Your task to perform on an android device: remove spam from my inbox in the gmail app Image 0: 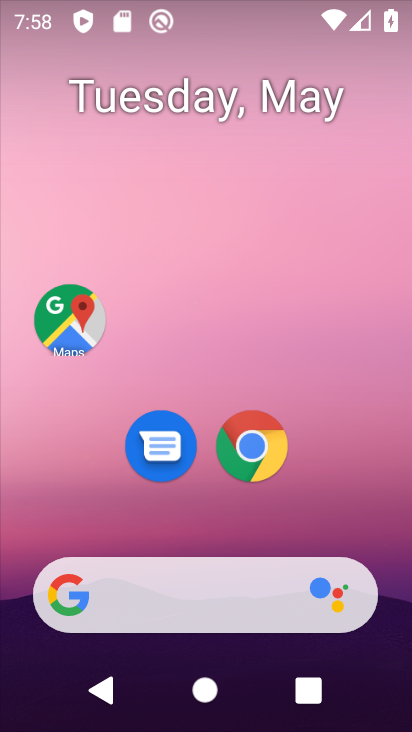
Step 0: drag from (343, 548) to (371, 24)
Your task to perform on an android device: remove spam from my inbox in the gmail app Image 1: 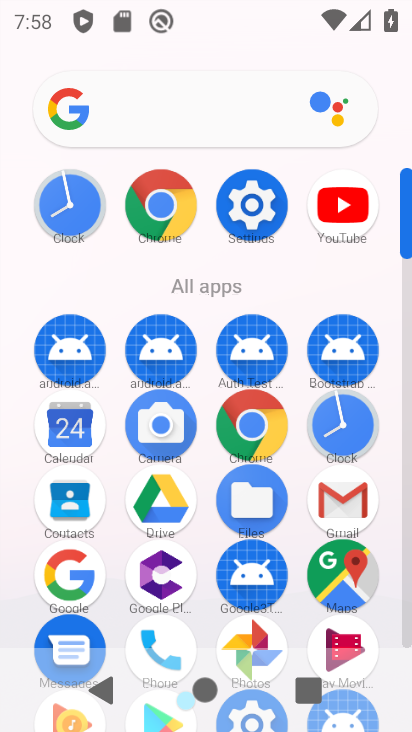
Step 1: click (348, 501)
Your task to perform on an android device: remove spam from my inbox in the gmail app Image 2: 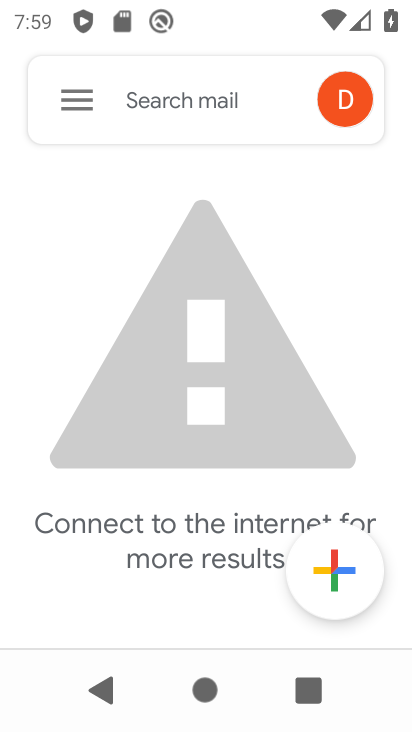
Step 2: click (69, 95)
Your task to perform on an android device: remove spam from my inbox in the gmail app Image 3: 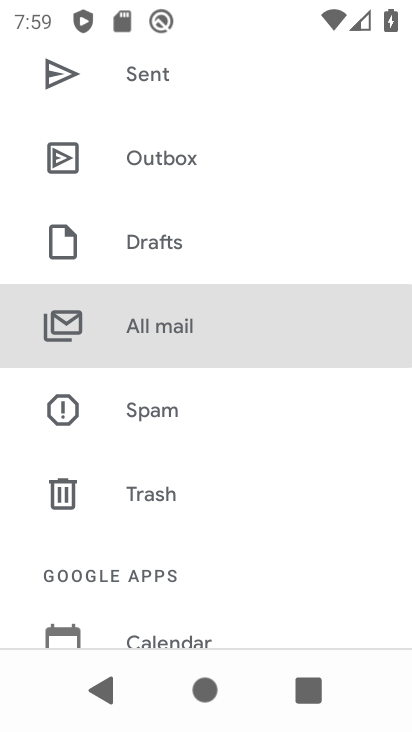
Step 3: click (145, 418)
Your task to perform on an android device: remove spam from my inbox in the gmail app Image 4: 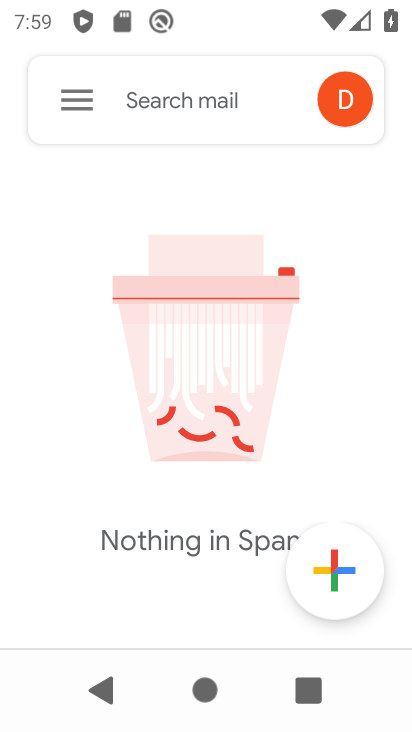
Step 4: task complete